Your task to perform on an android device: add a label to a message in the gmail app Image 0: 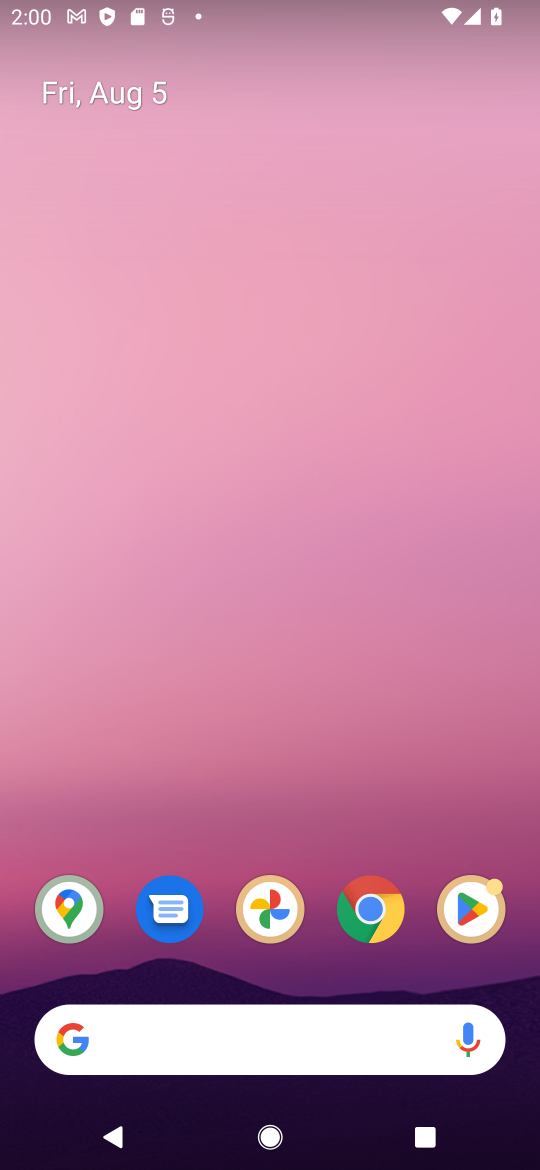
Step 0: drag from (326, 970) to (318, 40)
Your task to perform on an android device: add a label to a message in the gmail app Image 1: 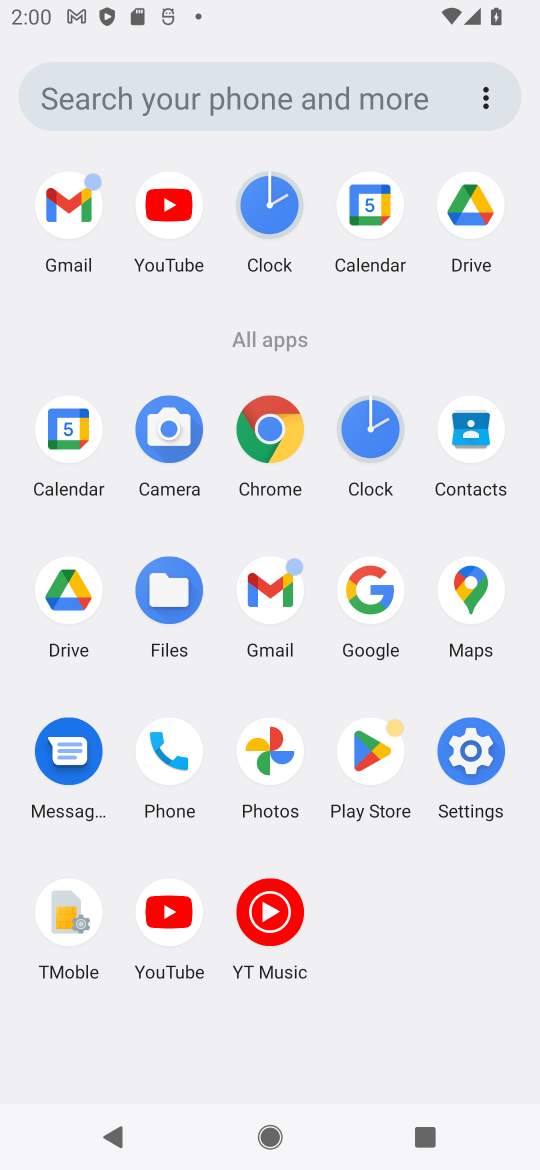
Step 1: click (92, 213)
Your task to perform on an android device: add a label to a message in the gmail app Image 2: 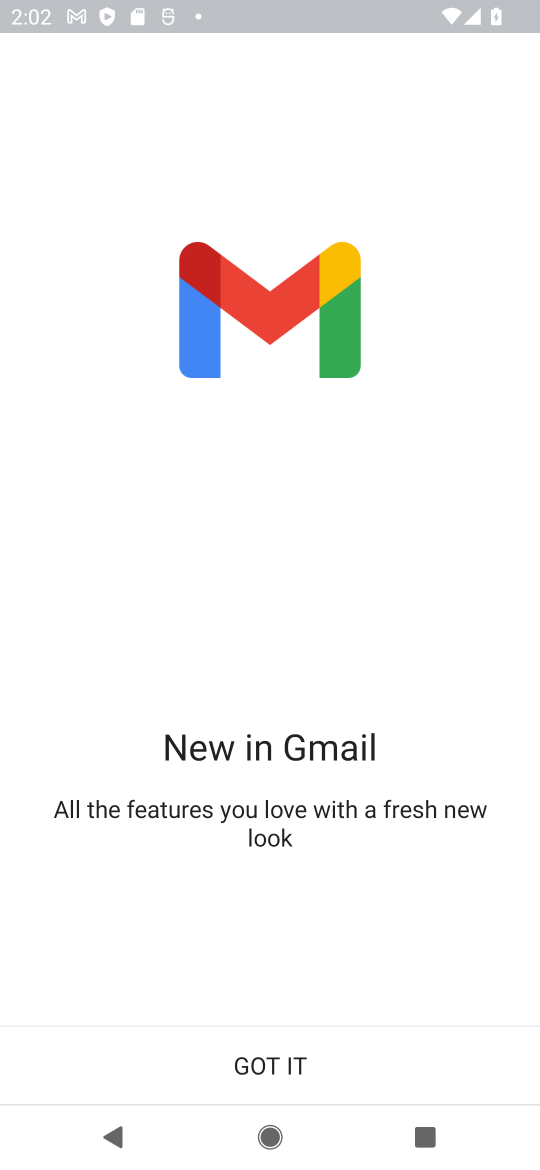
Step 2: click (302, 1090)
Your task to perform on an android device: add a label to a message in the gmail app Image 3: 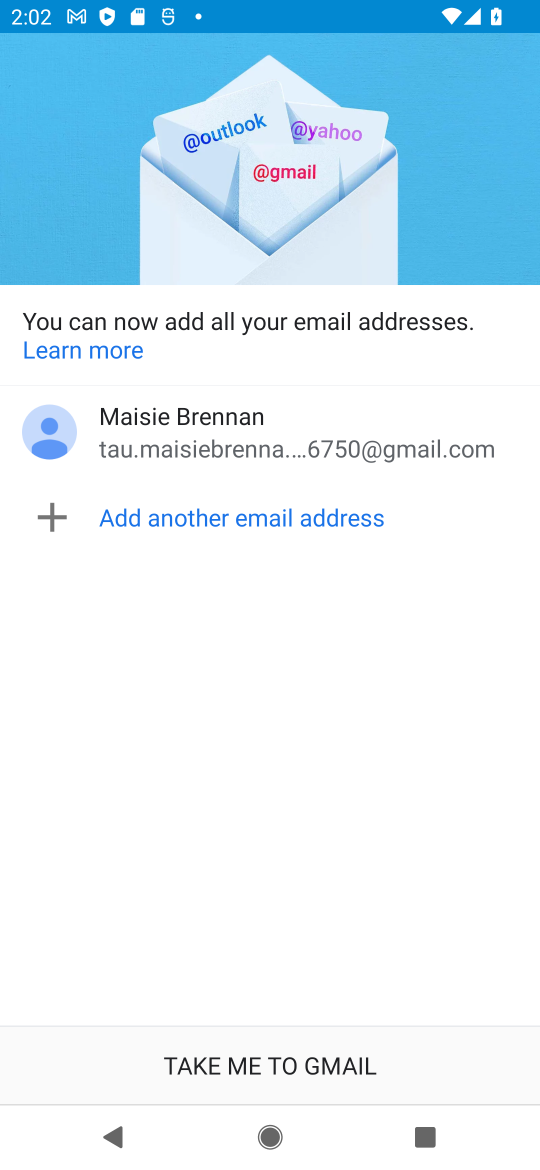
Step 3: click (302, 1090)
Your task to perform on an android device: add a label to a message in the gmail app Image 4: 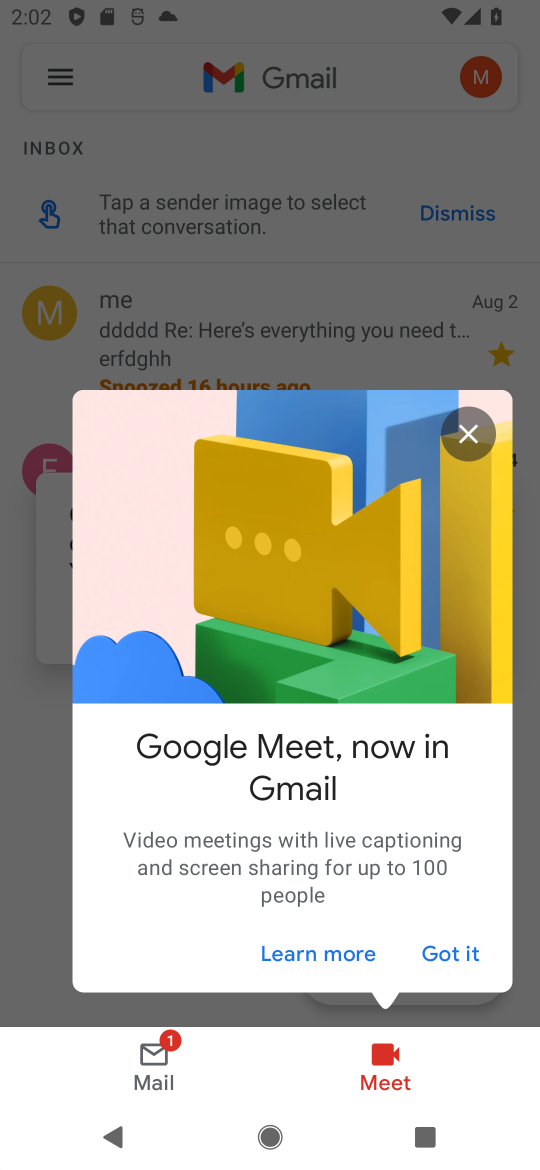
Step 4: click (448, 929)
Your task to perform on an android device: add a label to a message in the gmail app Image 5: 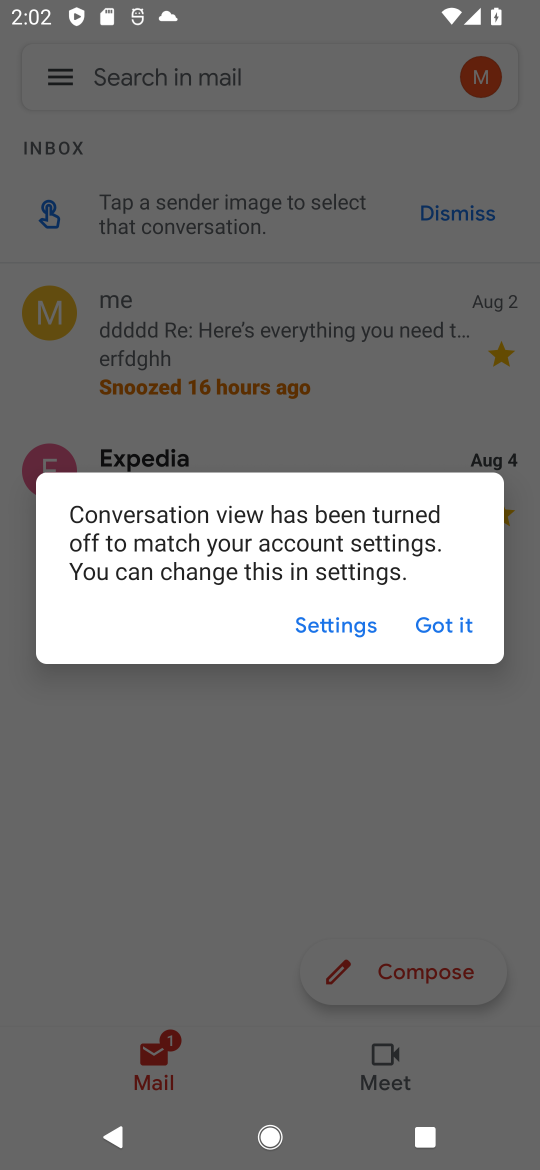
Step 5: click (431, 638)
Your task to perform on an android device: add a label to a message in the gmail app Image 6: 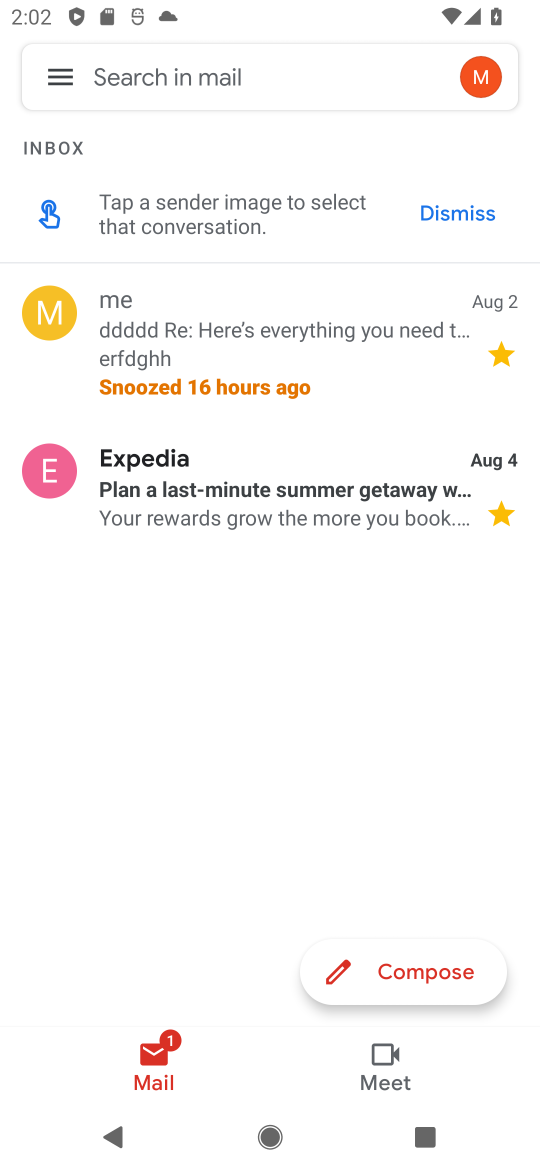
Step 6: click (399, 384)
Your task to perform on an android device: add a label to a message in the gmail app Image 7: 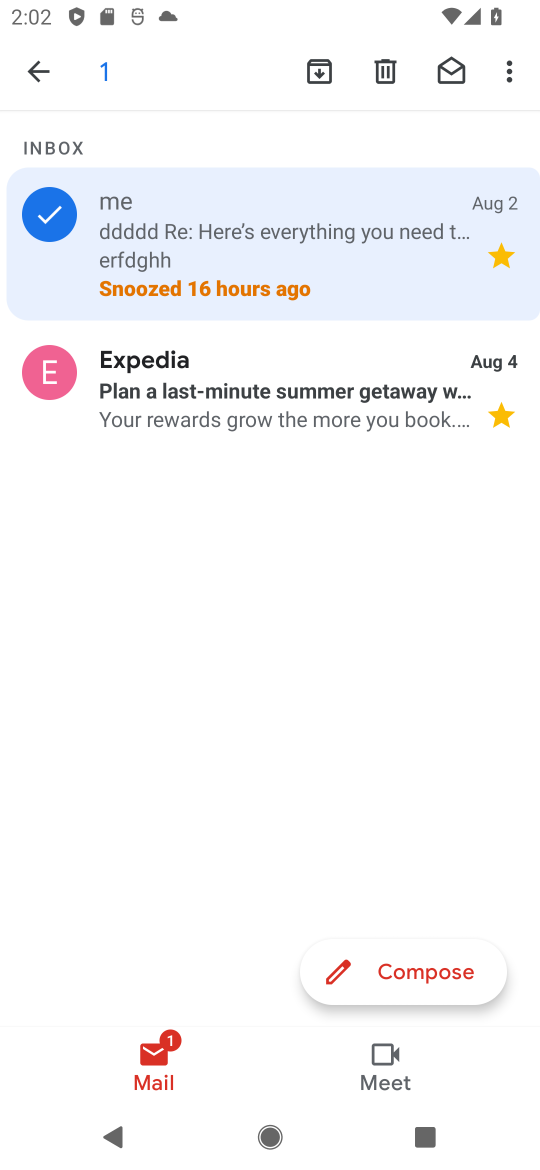
Step 7: click (502, 65)
Your task to perform on an android device: add a label to a message in the gmail app Image 8: 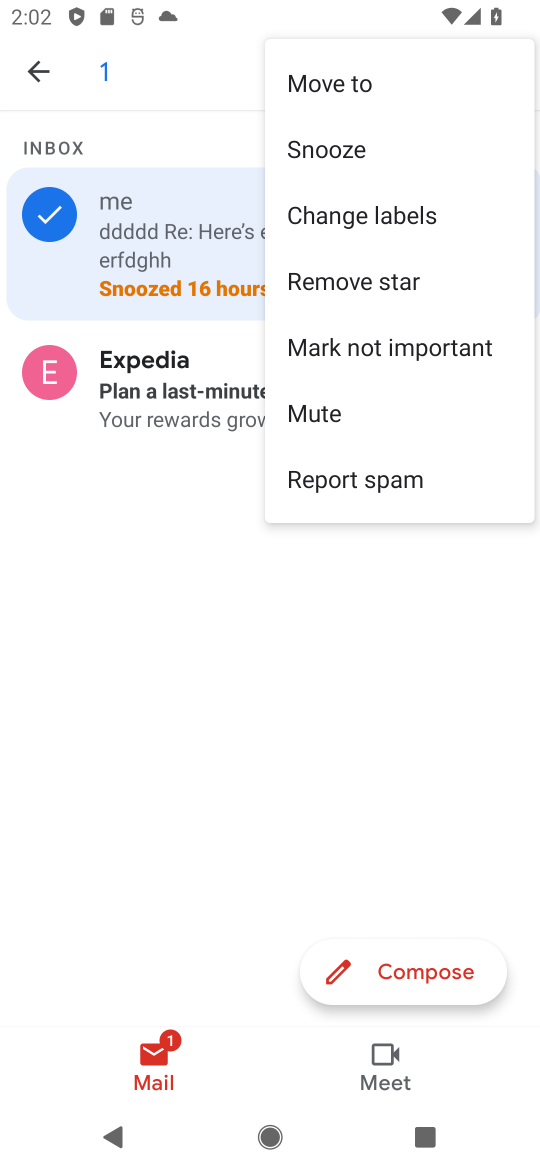
Step 8: click (431, 206)
Your task to perform on an android device: add a label to a message in the gmail app Image 9: 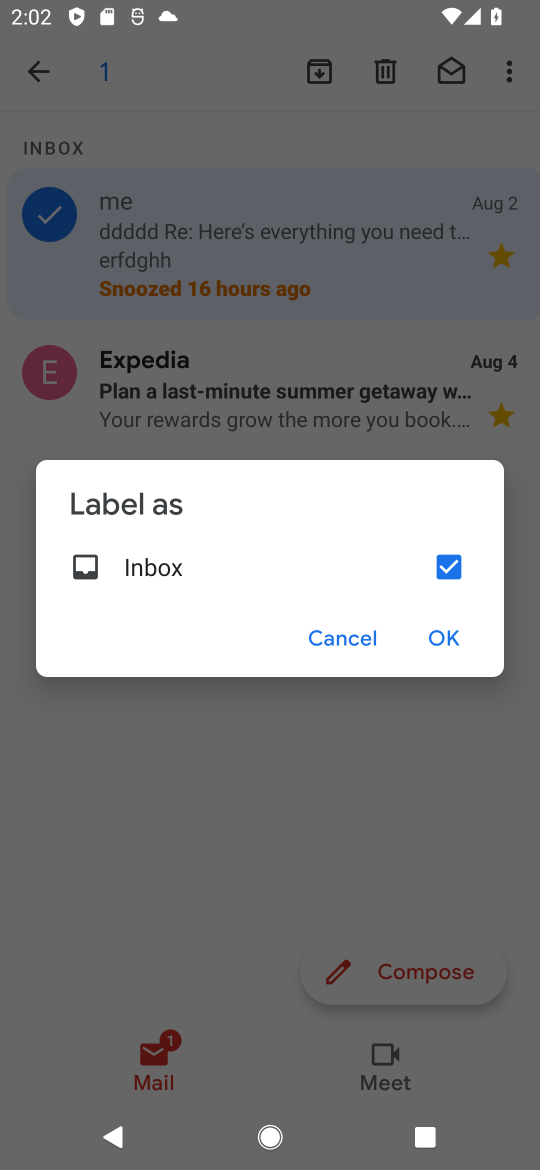
Step 9: click (438, 630)
Your task to perform on an android device: add a label to a message in the gmail app Image 10: 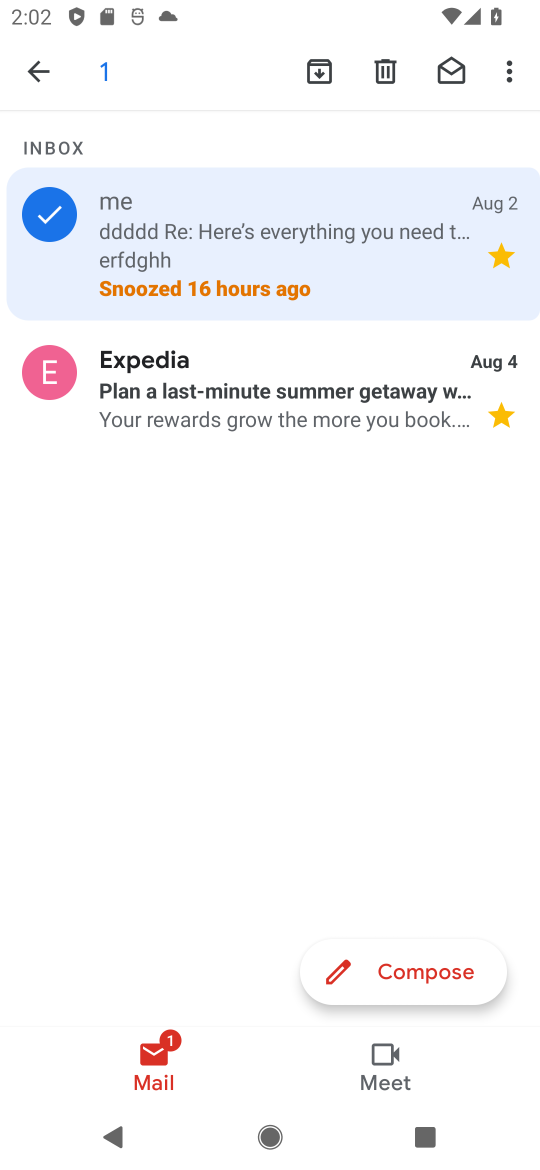
Step 10: task complete